Your task to perform on an android device: Open Wikipedia Image 0: 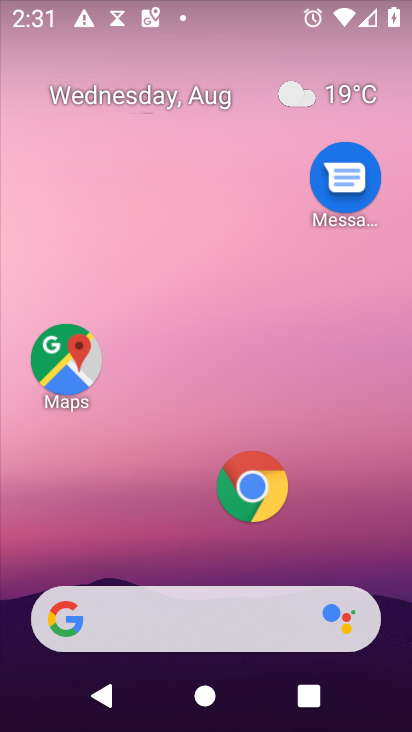
Step 0: click (231, 482)
Your task to perform on an android device: Open Wikipedia Image 1: 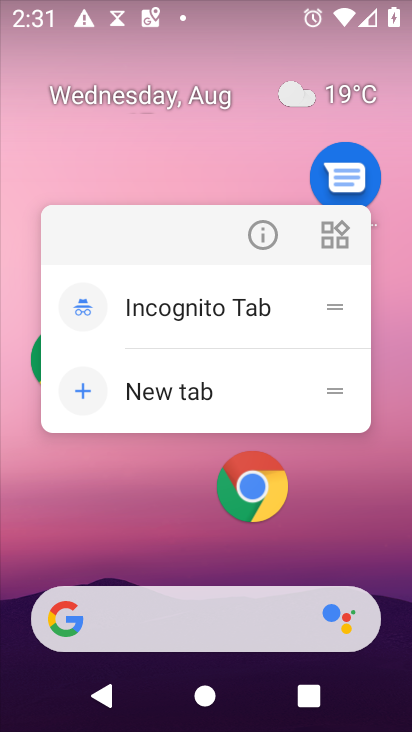
Step 1: click (255, 480)
Your task to perform on an android device: Open Wikipedia Image 2: 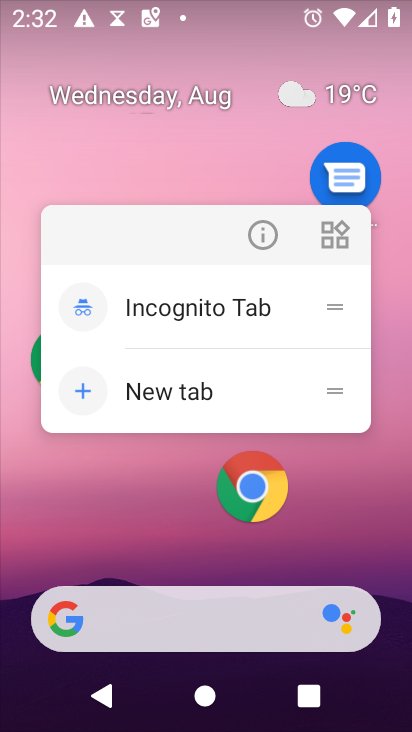
Step 2: click (265, 485)
Your task to perform on an android device: Open Wikipedia Image 3: 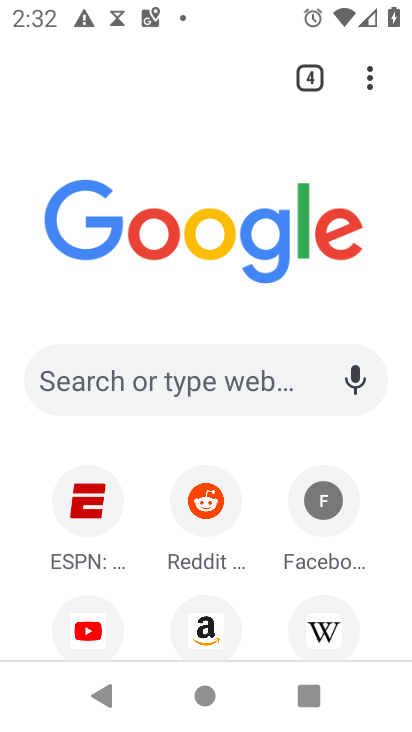
Step 3: click (320, 618)
Your task to perform on an android device: Open Wikipedia Image 4: 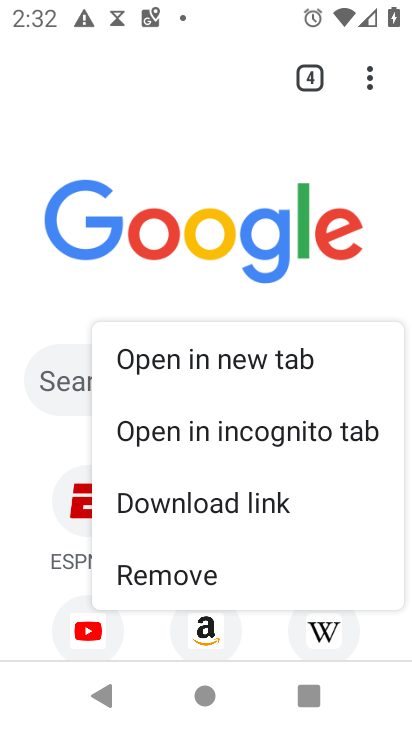
Step 4: click (319, 621)
Your task to perform on an android device: Open Wikipedia Image 5: 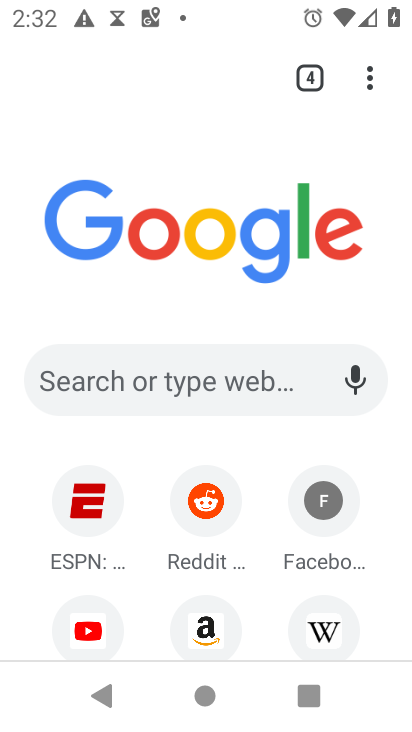
Step 5: click (318, 623)
Your task to perform on an android device: Open Wikipedia Image 6: 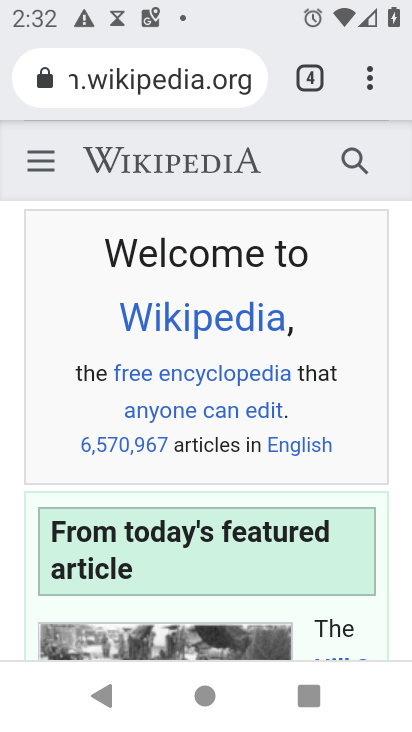
Step 6: task complete